Your task to perform on an android device: Open notification settings Image 0: 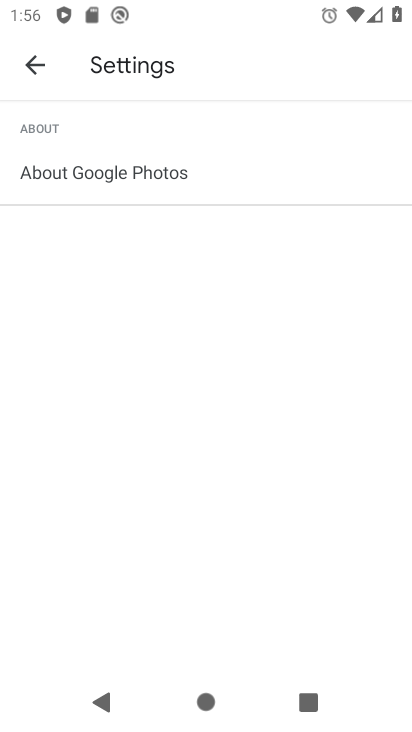
Step 0: press home button
Your task to perform on an android device: Open notification settings Image 1: 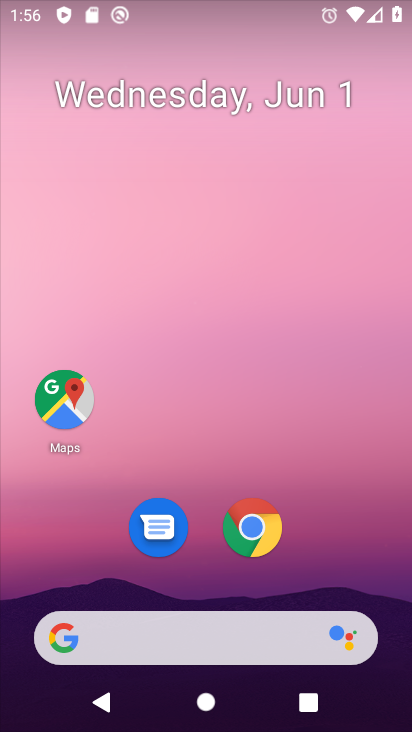
Step 1: drag from (388, 549) to (330, 18)
Your task to perform on an android device: Open notification settings Image 2: 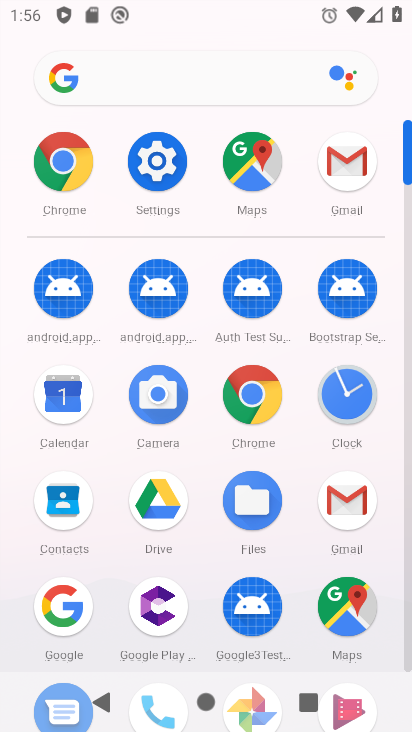
Step 2: click (140, 184)
Your task to perform on an android device: Open notification settings Image 3: 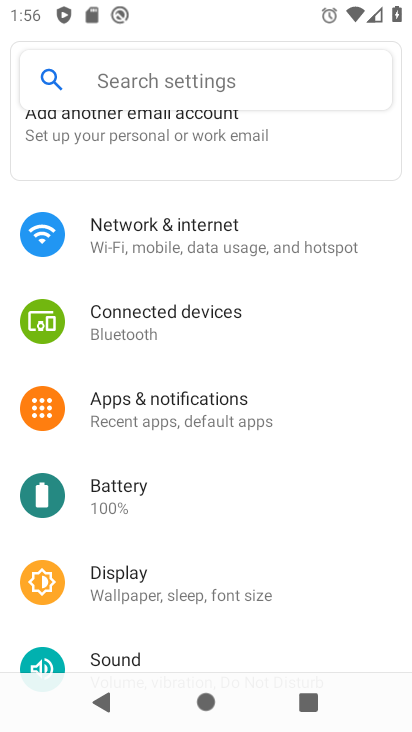
Step 3: click (223, 432)
Your task to perform on an android device: Open notification settings Image 4: 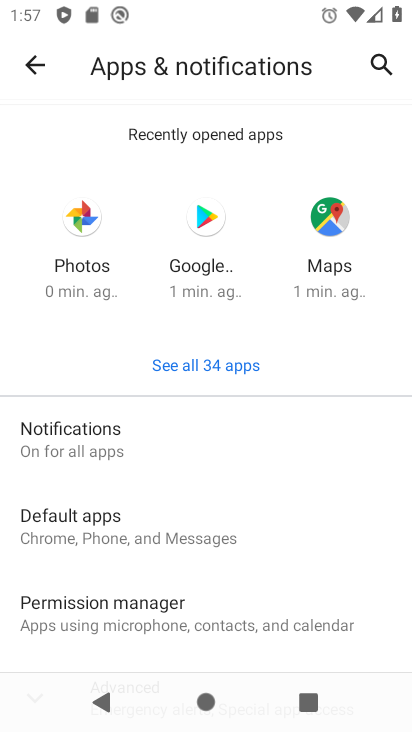
Step 4: click (223, 444)
Your task to perform on an android device: Open notification settings Image 5: 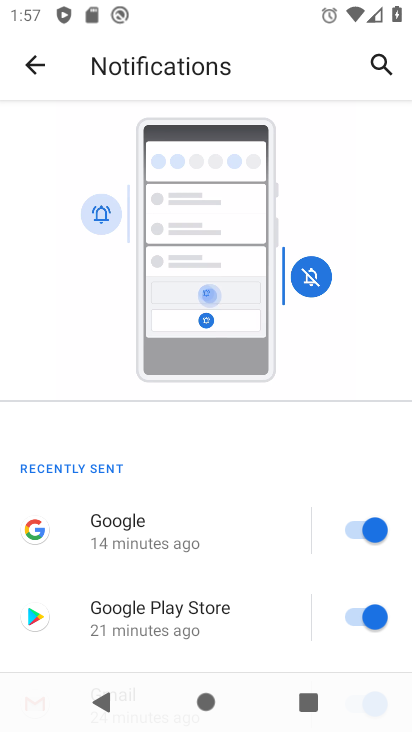
Step 5: task complete